Your task to perform on an android device: Open network settings Image 0: 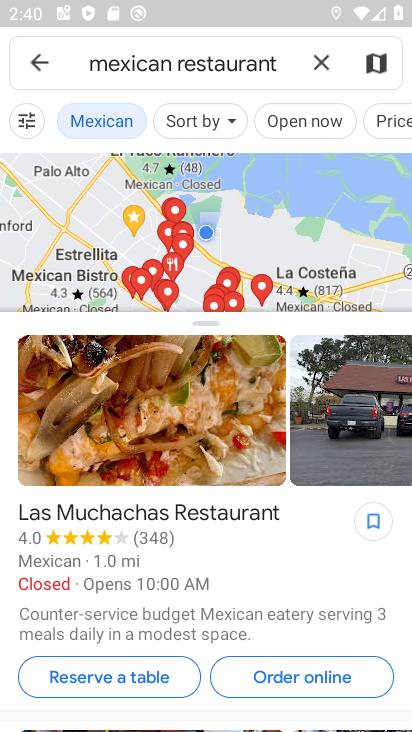
Step 0: press back button
Your task to perform on an android device: Open network settings Image 1: 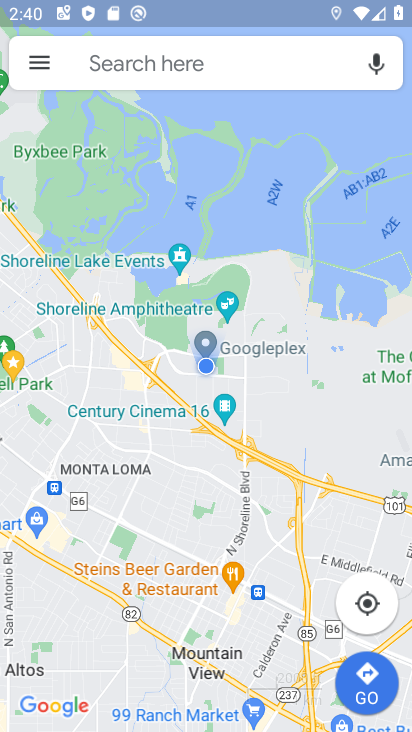
Step 1: press back button
Your task to perform on an android device: Open network settings Image 2: 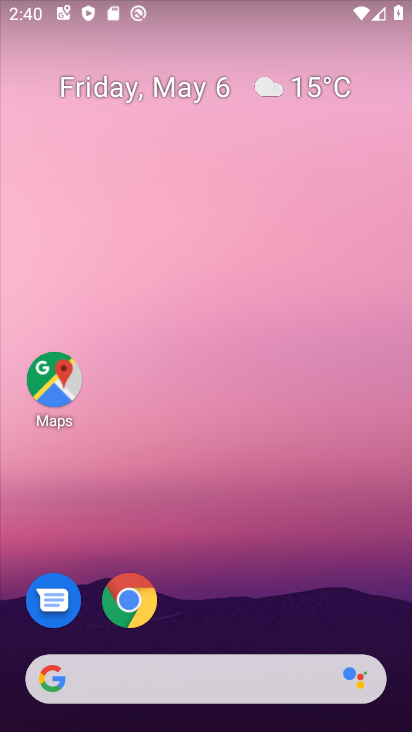
Step 2: drag from (236, 593) to (126, 1)
Your task to perform on an android device: Open network settings Image 3: 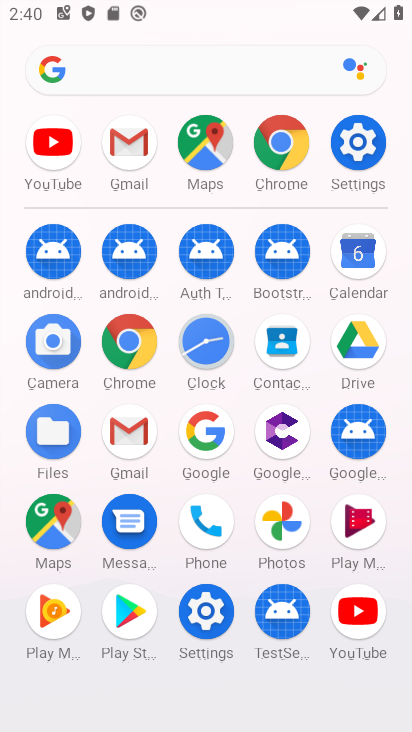
Step 3: drag from (5, 571) to (14, 256)
Your task to perform on an android device: Open network settings Image 4: 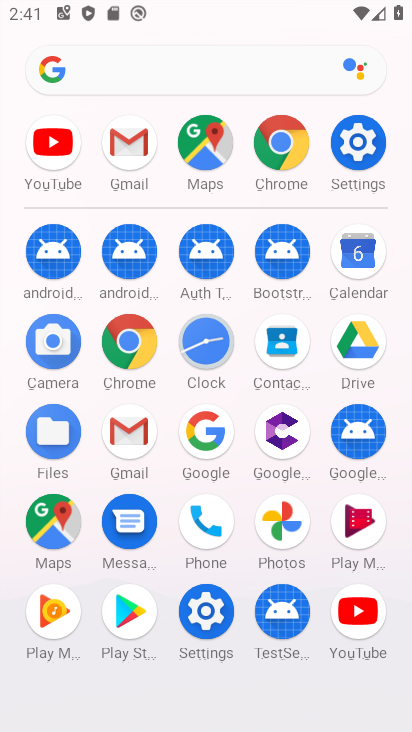
Step 4: click (209, 607)
Your task to perform on an android device: Open network settings Image 5: 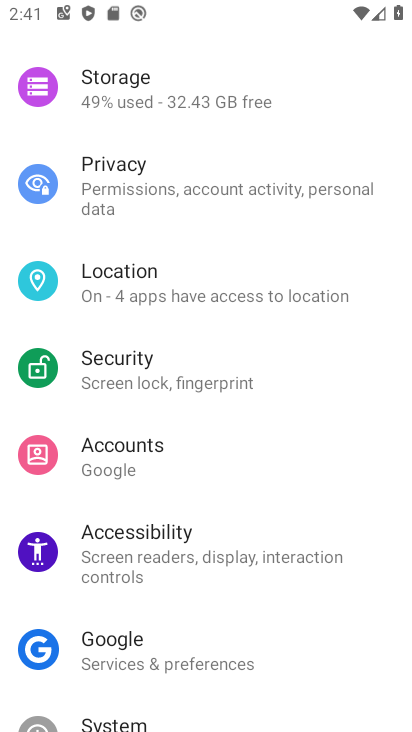
Step 5: drag from (210, 98) to (282, 598)
Your task to perform on an android device: Open network settings Image 6: 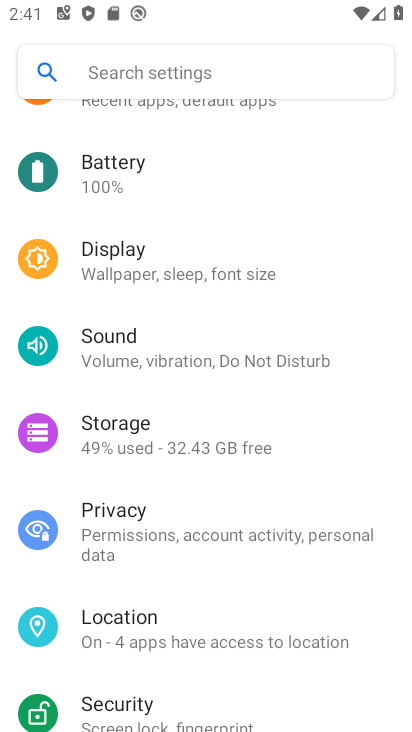
Step 6: drag from (275, 199) to (282, 660)
Your task to perform on an android device: Open network settings Image 7: 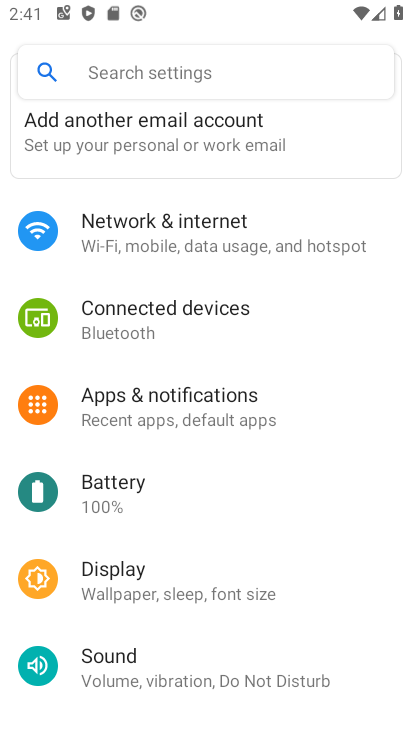
Step 7: click (243, 232)
Your task to perform on an android device: Open network settings Image 8: 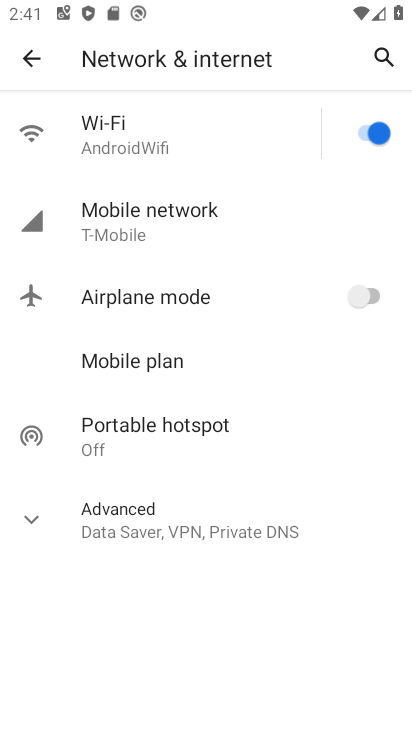
Step 8: click (48, 517)
Your task to perform on an android device: Open network settings Image 9: 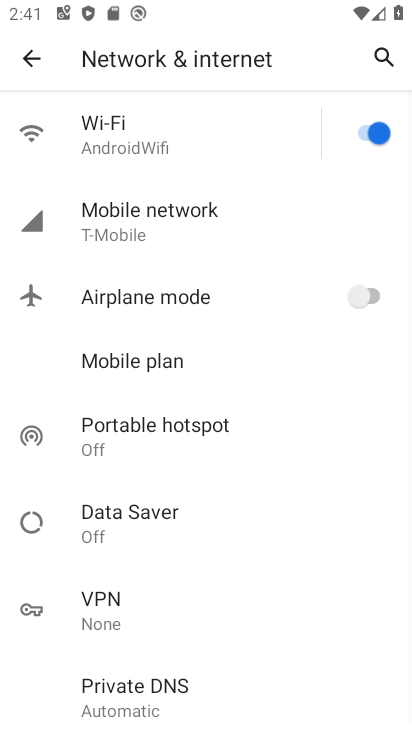
Step 9: task complete